Your task to perform on an android device: Open sound settings Image 0: 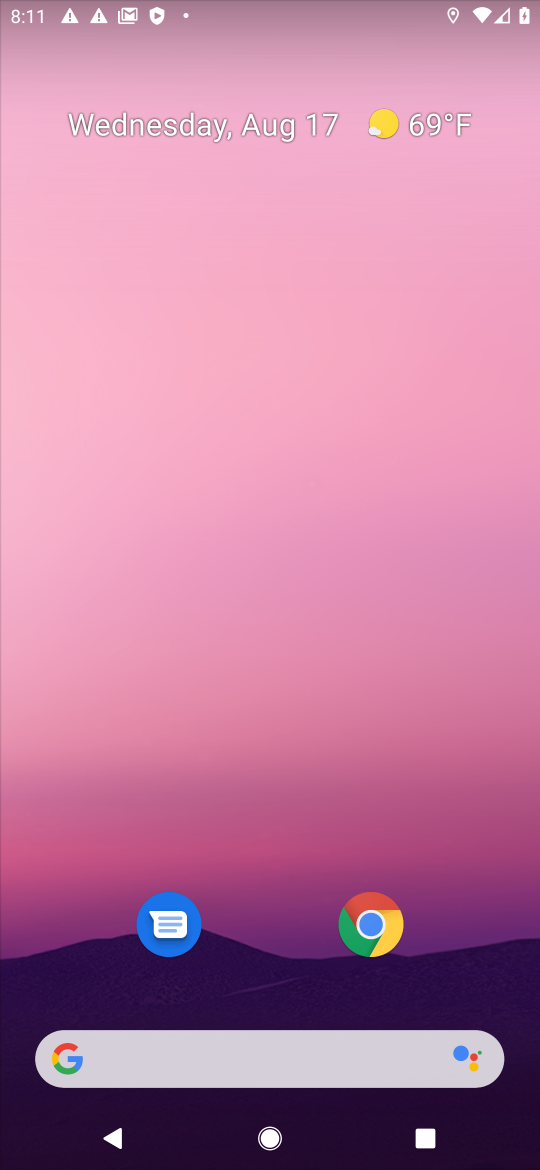
Step 0: drag from (279, 943) to (319, 15)
Your task to perform on an android device: Open sound settings Image 1: 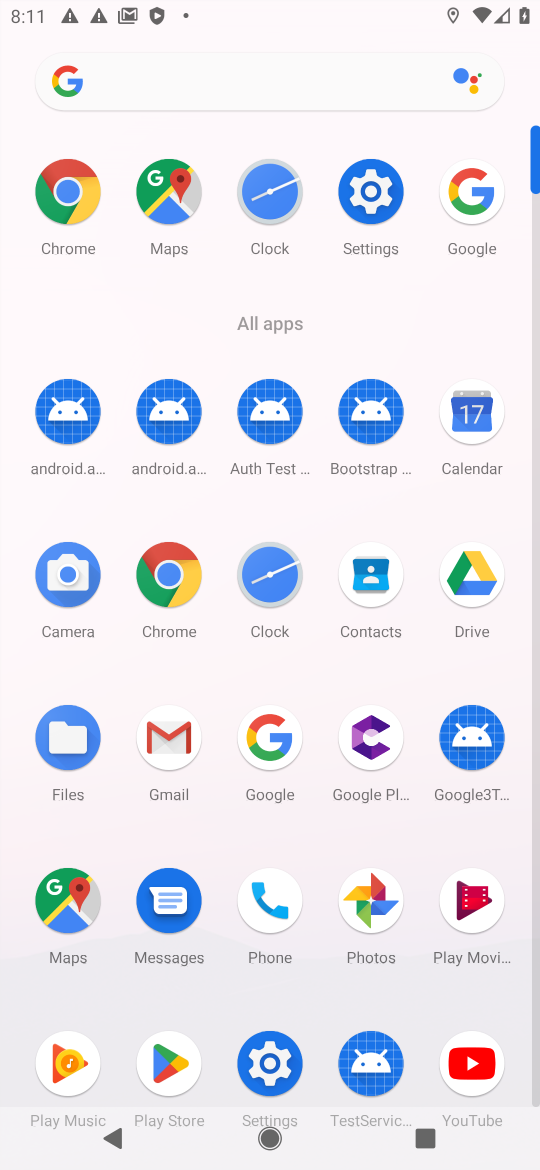
Step 1: click (372, 196)
Your task to perform on an android device: Open sound settings Image 2: 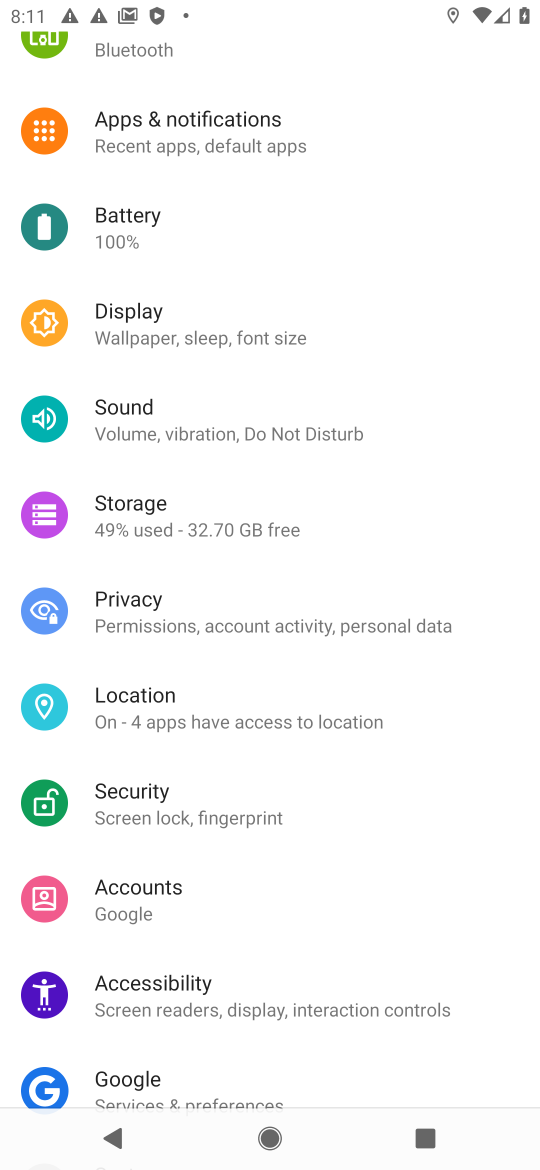
Step 2: click (178, 429)
Your task to perform on an android device: Open sound settings Image 3: 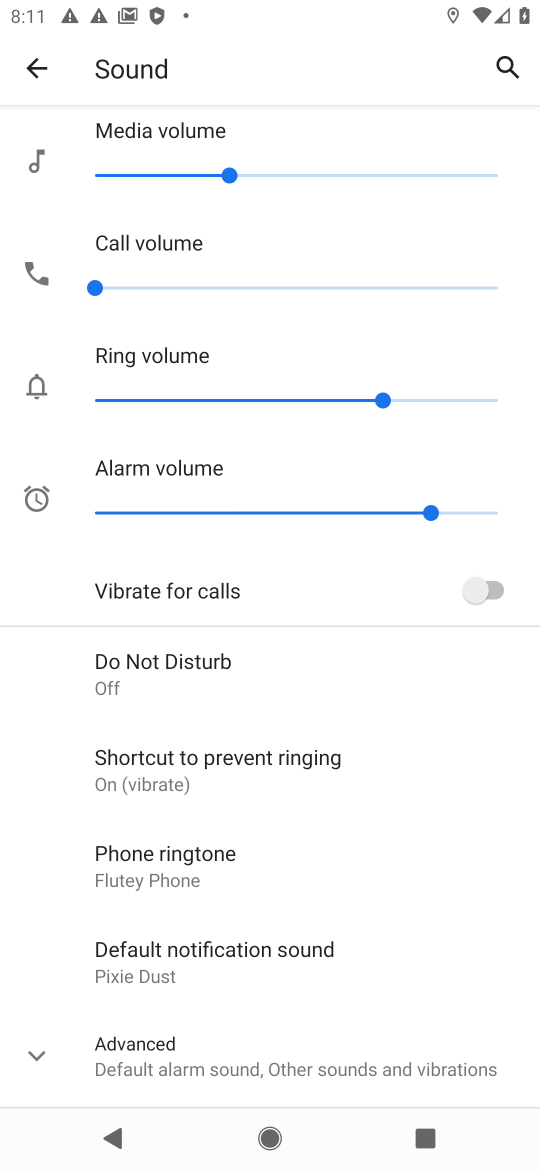
Step 3: task complete